Your task to perform on an android device: uninstall "WhatsApp Messenger" Image 0: 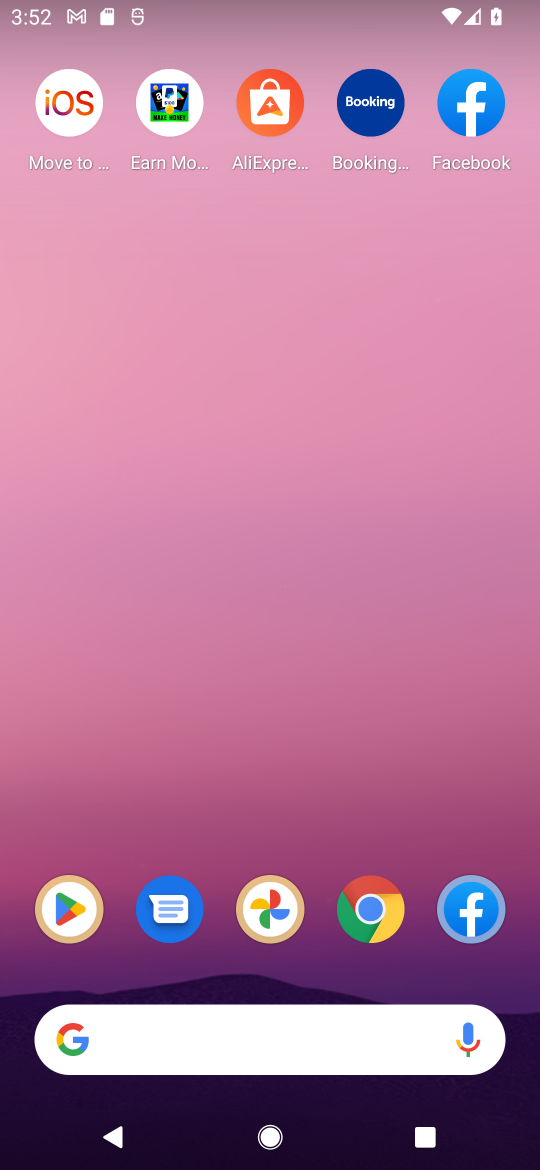
Step 0: click (60, 904)
Your task to perform on an android device: uninstall "WhatsApp Messenger" Image 1: 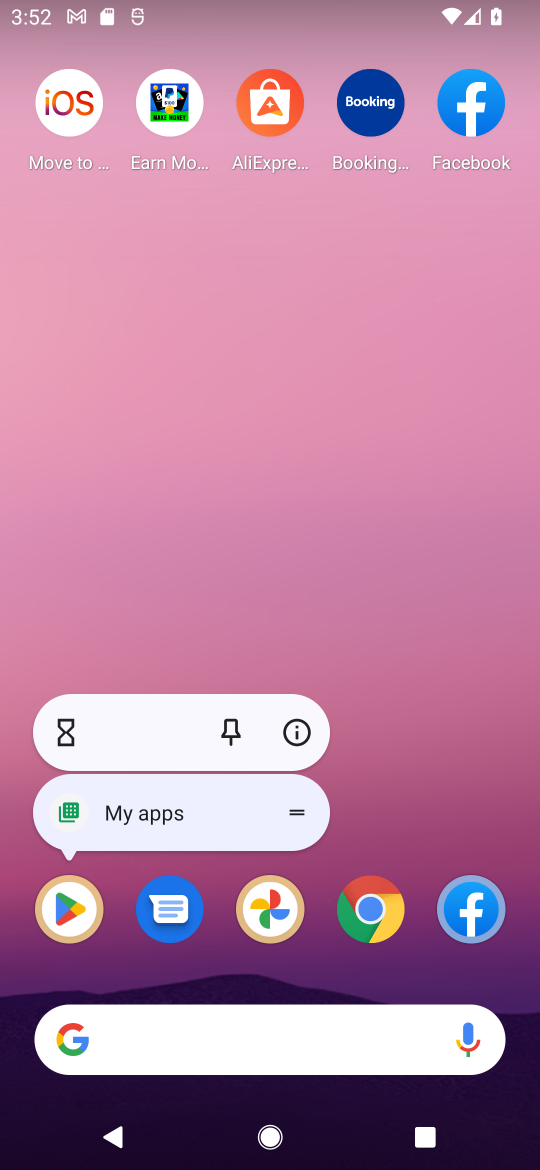
Step 1: click (60, 904)
Your task to perform on an android device: uninstall "WhatsApp Messenger" Image 2: 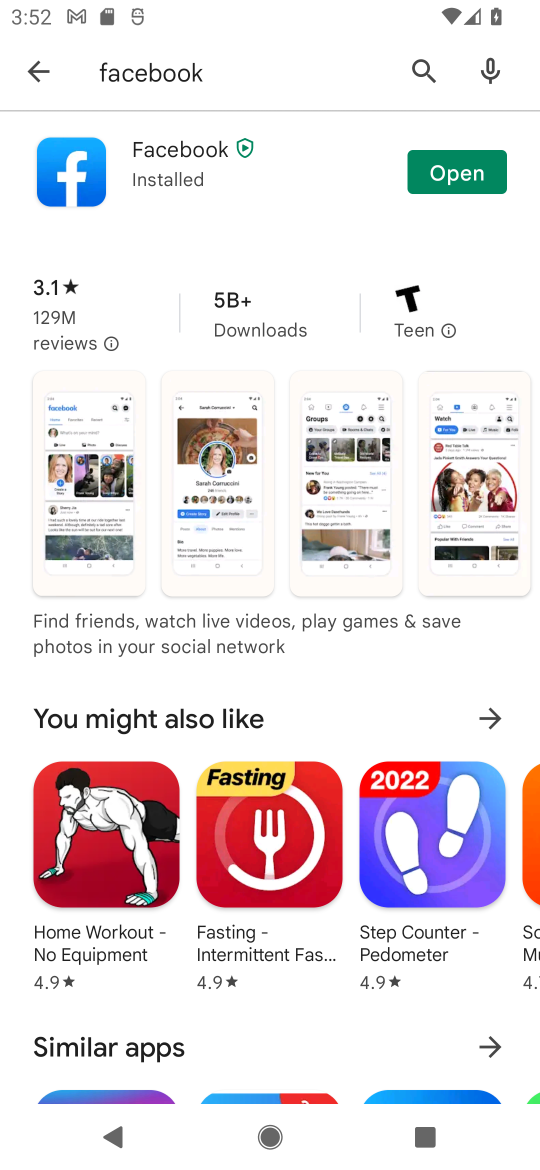
Step 2: click (257, 50)
Your task to perform on an android device: uninstall "WhatsApp Messenger" Image 3: 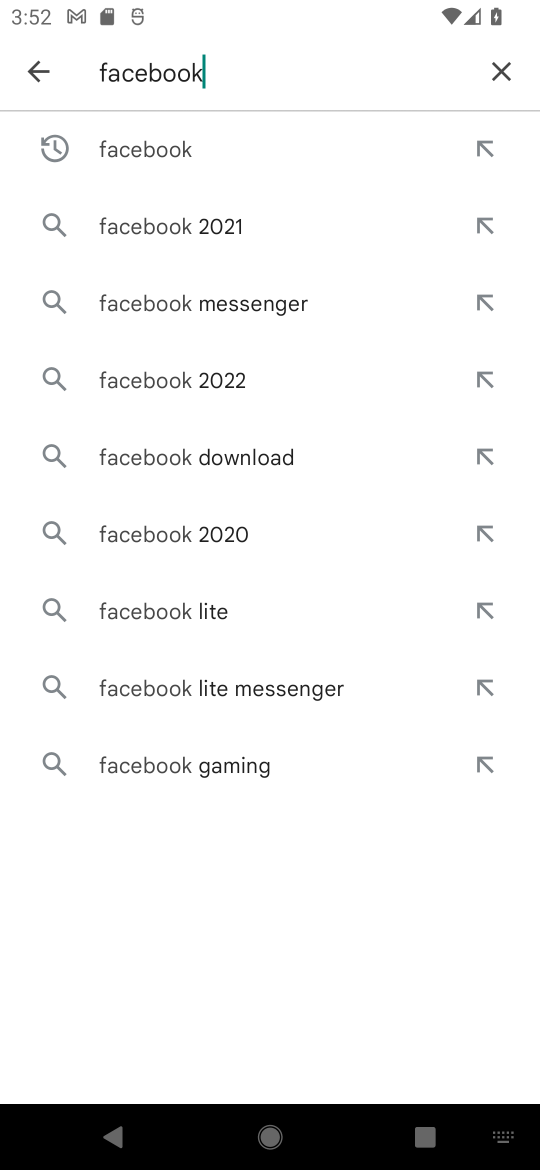
Step 3: click (499, 68)
Your task to perform on an android device: uninstall "WhatsApp Messenger" Image 4: 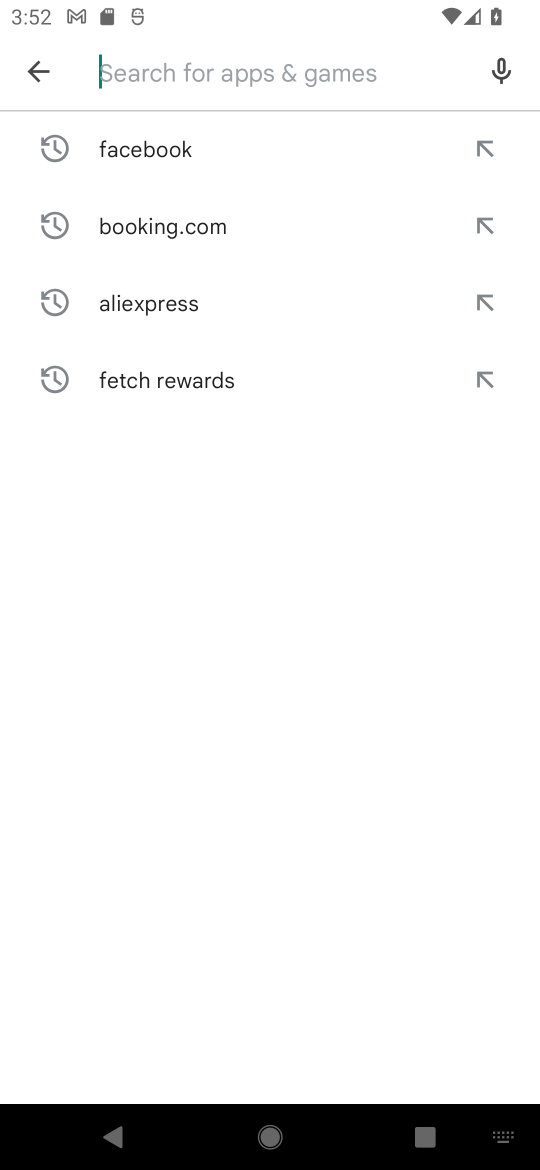
Step 4: type "whatsapp messenger "
Your task to perform on an android device: uninstall "WhatsApp Messenger" Image 5: 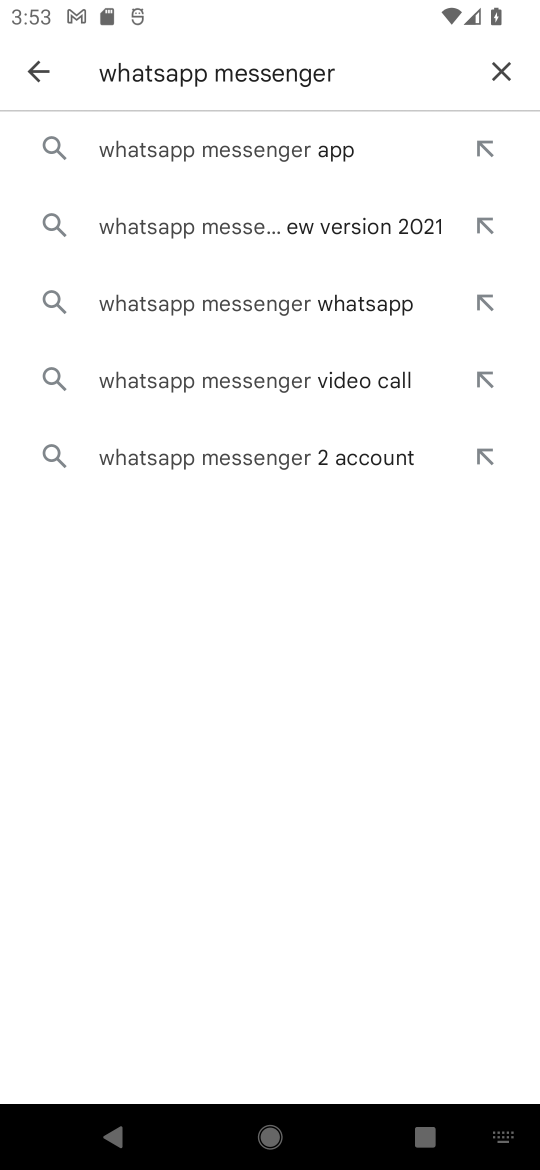
Step 5: click (147, 153)
Your task to perform on an android device: uninstall "WhatsApp Messenger" Image 6: 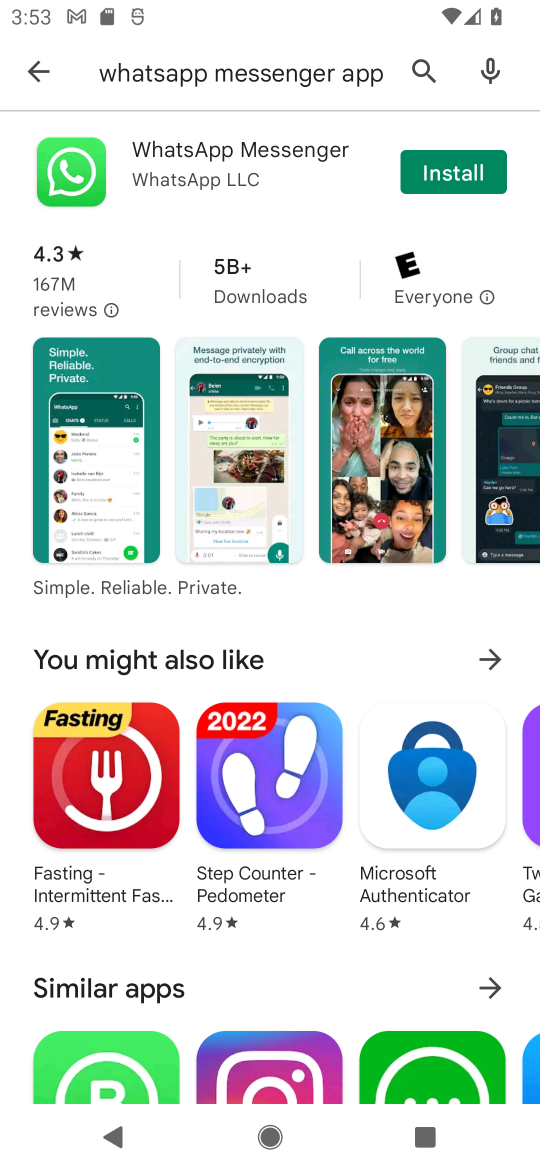
Step 6: click (87, 160)
Your task to perform on an android device: uninstall "WhatsApp Messenger" Image 7: 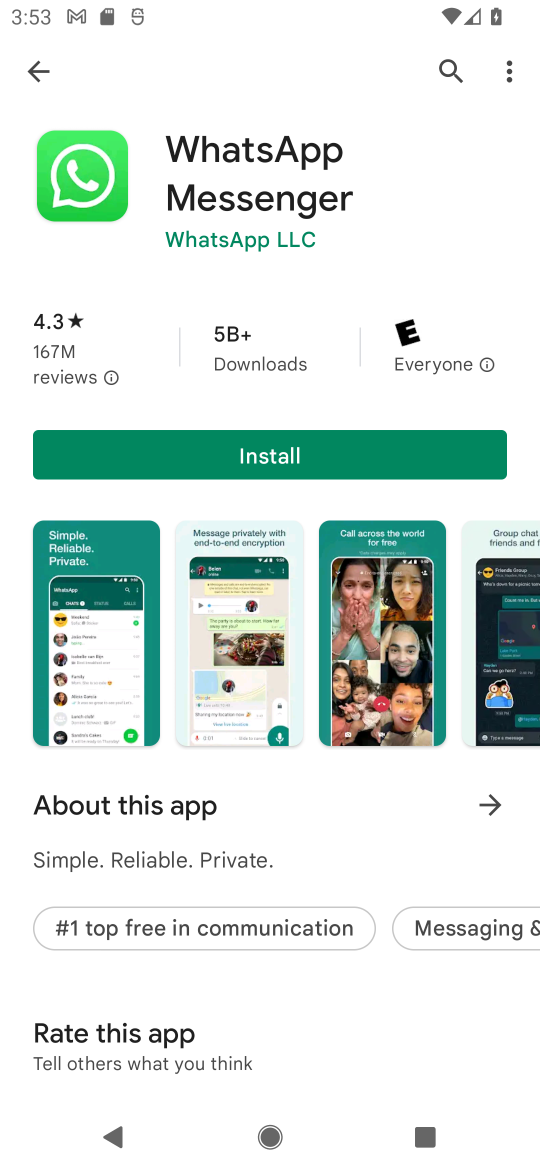
Step 7: task complete